Your task to perform on an android device: change timer sound Image 0: 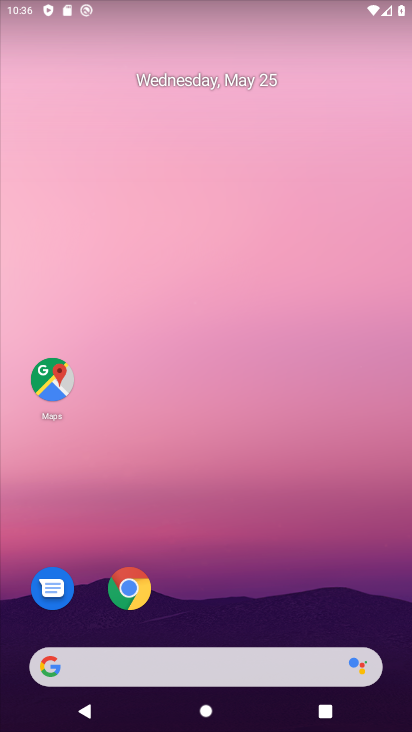
Step 0: drag from (278, 598) to (199, 116)
Your task to perform on an android device: change timer sound Image 1: 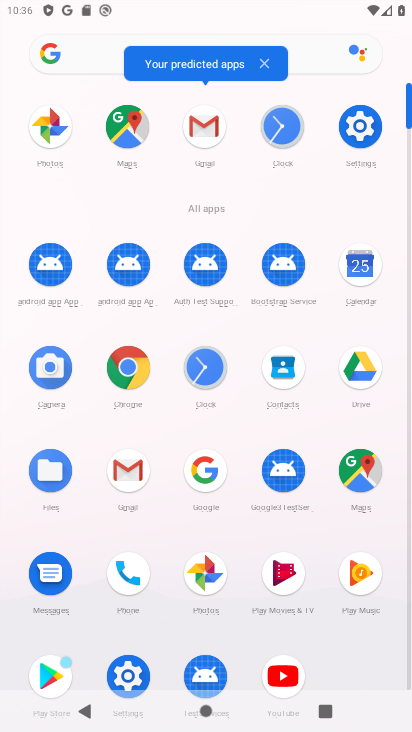
Step 1: click (282, 125)
Your task to perform on an android device: change timer sound Image 2: 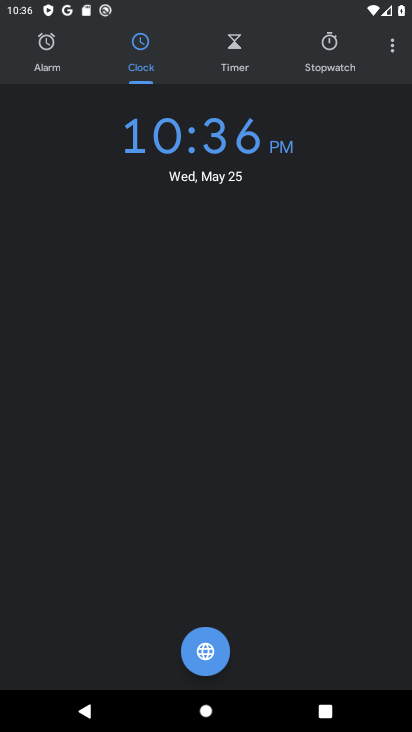
Step 2: click (394, 50)
Your task to perform on an android device: change timer sound Image 3: 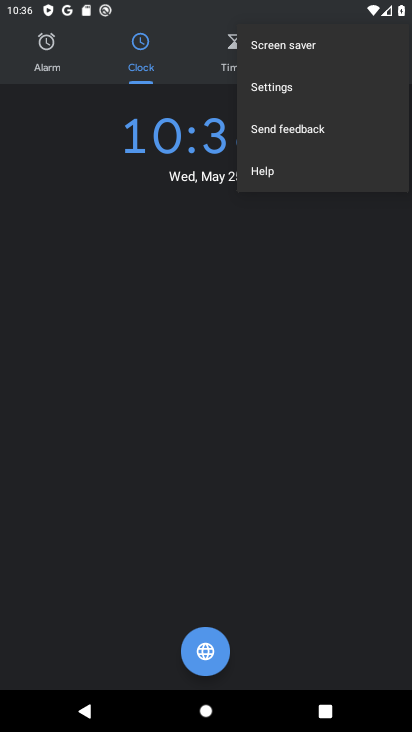
Step 3: click (281, 90)
Your task to perform on an android device: change timer sound Image 4: 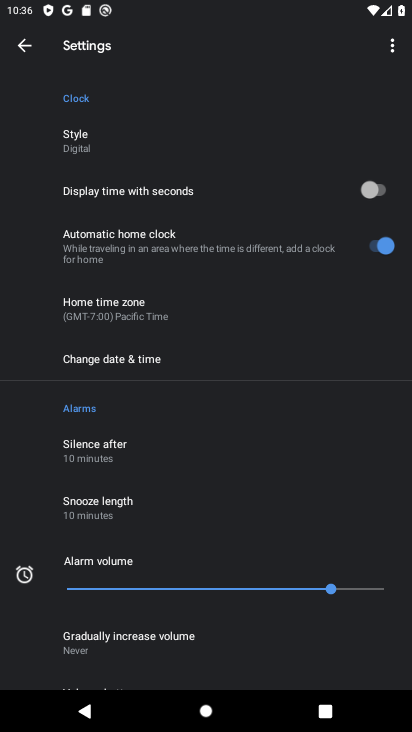
Step 4: drag from (203, 514) to (264, 380)
Your task to perform on an android device: change timer sound Image 5: 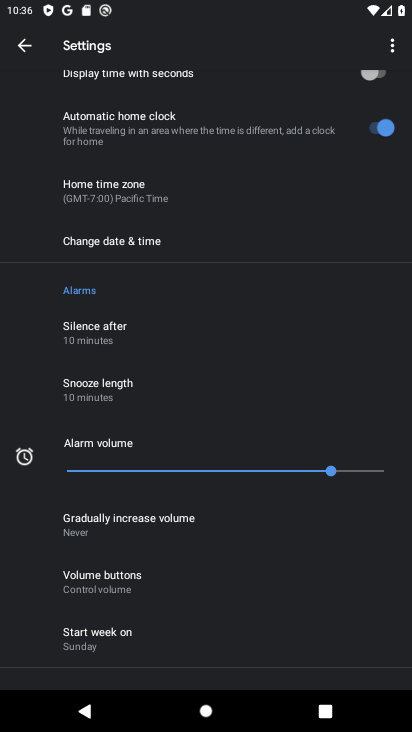
Step 5: drag from (186, 579) to (280, 387)
Your task to perform on an android device: change timer sound Image 6: 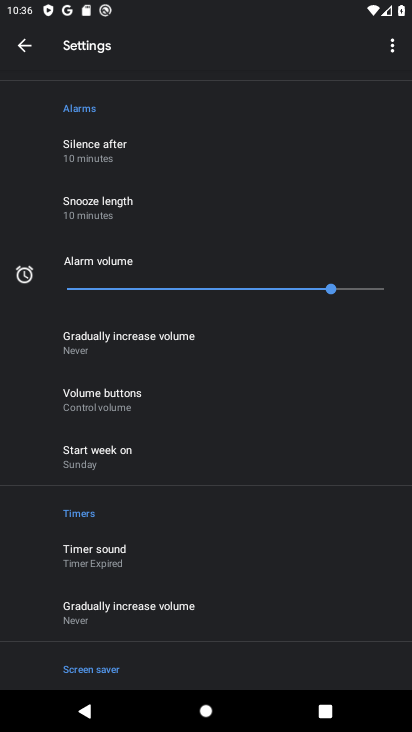
Step 6: click (123, 552)
Your task to perform on an android device: change timer sound Image 7: 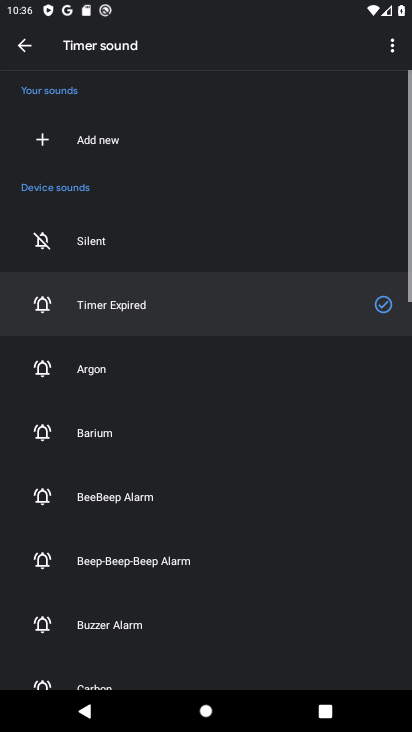
Step 7: drag from (181, 541) to (228, 407)
Your task to perform on an android device: change timer sound Image 8: 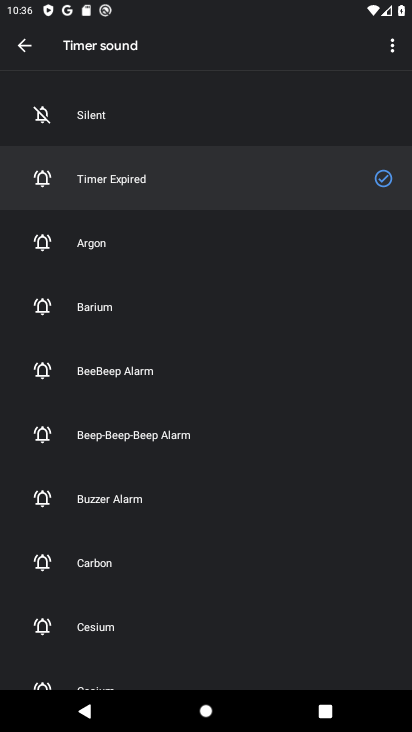
Step 8: drag from (181, 556) to (236, 386)
Your task to perform on an android device: change timer sound Image 9: 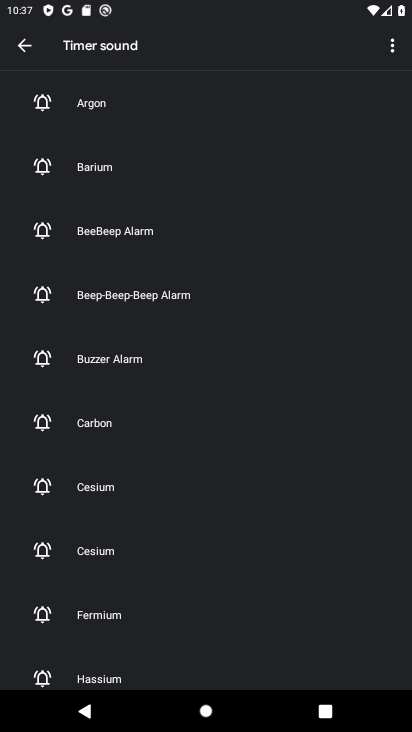
Step 9: drag from (203, 574) to (253, 416)
Your task to perform on an android device: change timer sound Image 10: 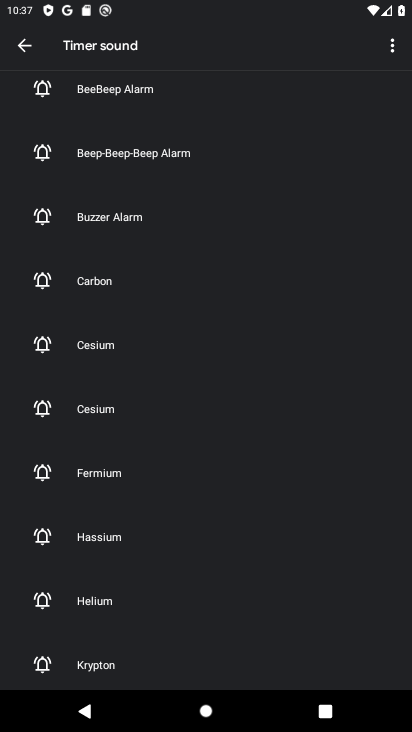
Step 10: drag from (211, 540) to (272, 431)
Your task to perform on an android device: change timer sound Image 11: 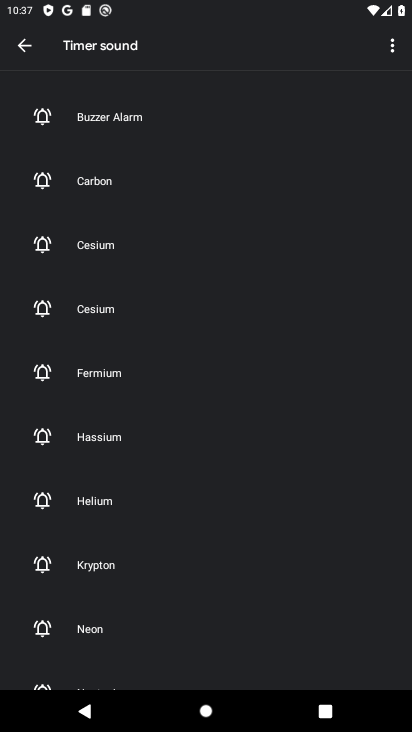
Step 11: click (125, 493)
Your task to perform on an android device: change timer sound Image 12: 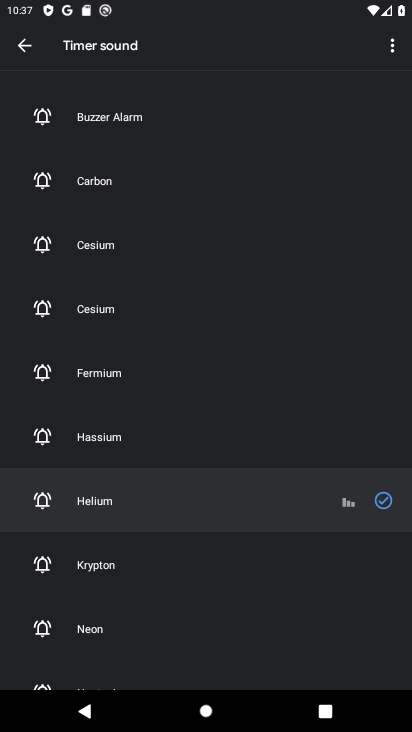
Step 12: task complete